Your task to perform on an android device: create a new album in the google photos Image 0: 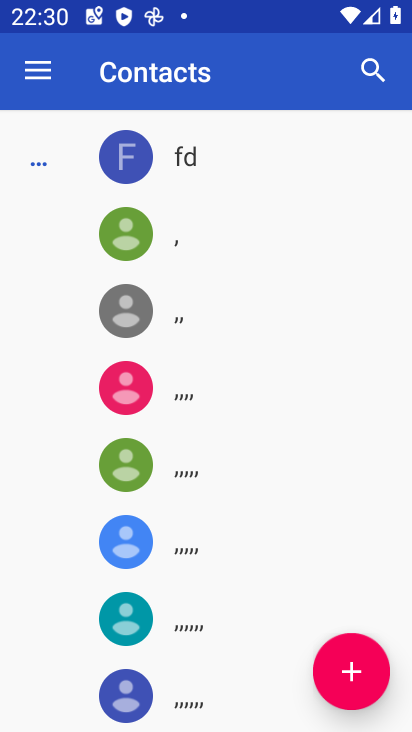
Step 0: press home button
Your task to perform on an android device: create a new album in the google photos Image 1: 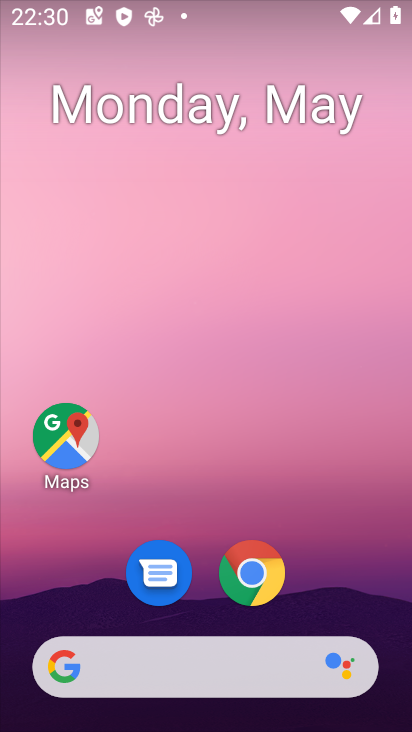
Step 1: drag from (369, 583) to (95, 58)
Your task to perform on an android device: create a new album in the google photos Image 2: 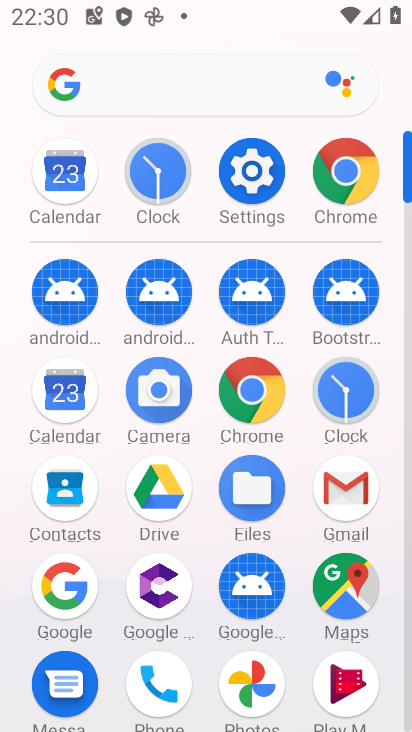
Step 2: click (264, 720)
Your task to perform on an android device: create a new album in the google photos Image 3: 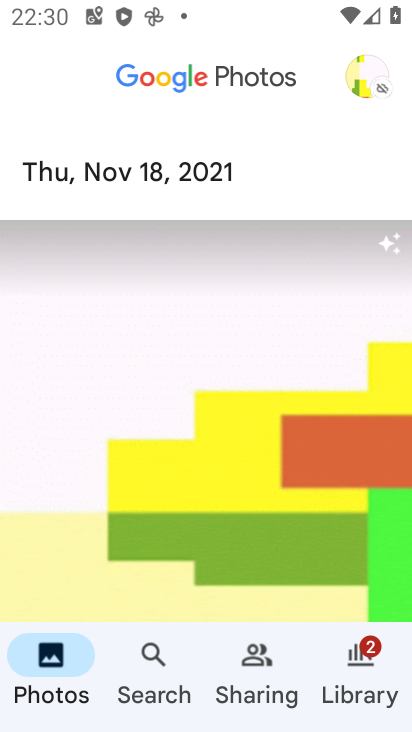
Step 3: click (345, 695)
Your task to perform on an android device: create a new album in the google photos Image 4: 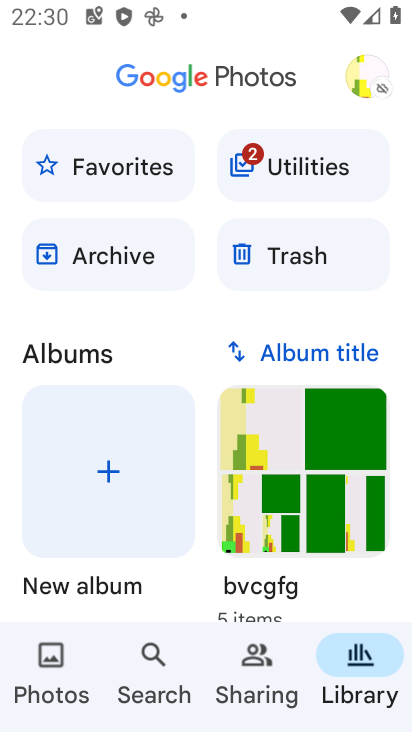
Step 4: task complete